Your task to perform on an android device: Go to settings Image 0: 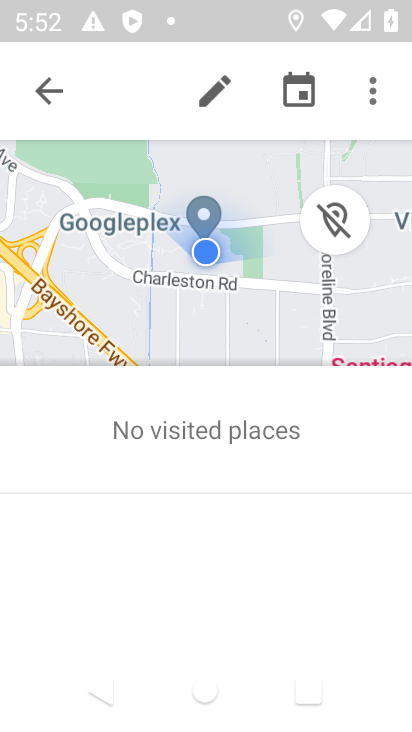
Step 0: press home button
Your task to perform on an android device: Go to settings Image 1: 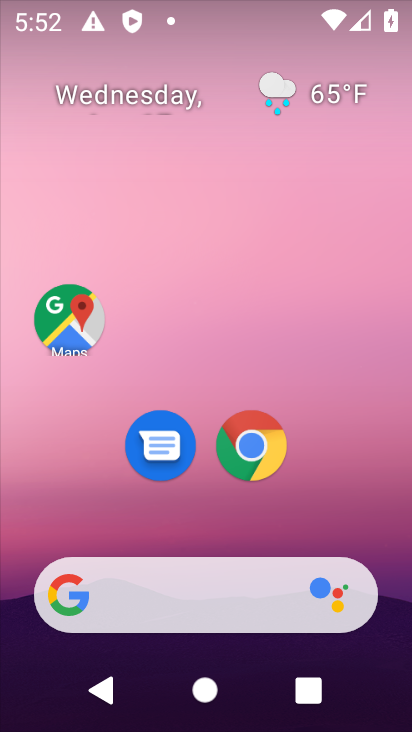
Step 1: drag from (224, 525) to (153, 199)
Your task to perform on an android device: Go to settings Image 2: 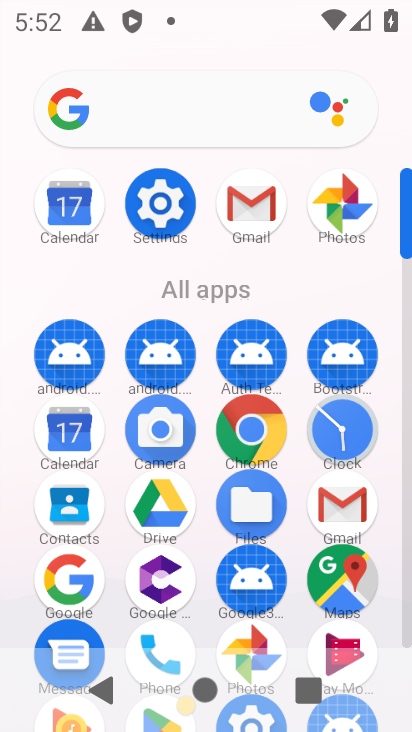
Step 2: click (147, 190)
Your task to perform on an android device: Go to settings Image 3: 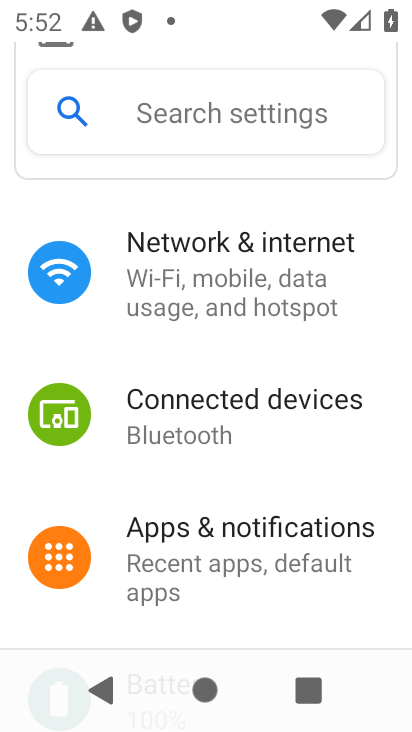
Step 3: task complete